Your task to perform on an android device: Show me recent news Image 0: 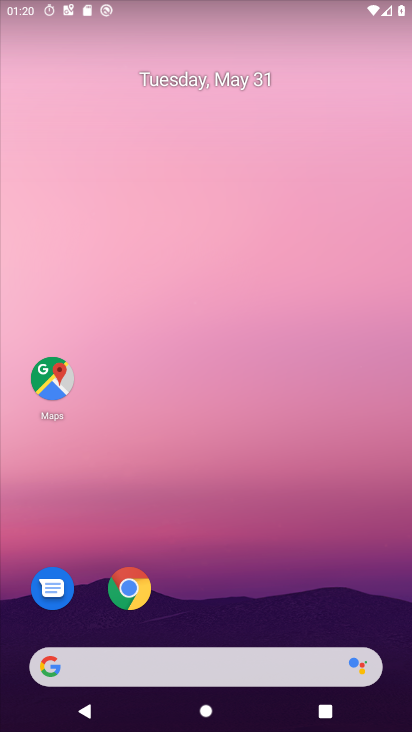
Step 0: drag from (283, 618) to (201, 22)
Your task to perform on an android device: Show me recent news Image 1: 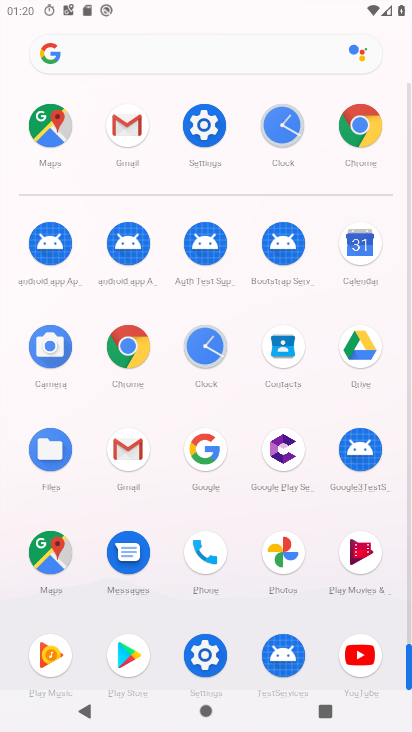
Step 1: click (120, 354)
Your task to perform on an android device: Show me recent news Image 2: 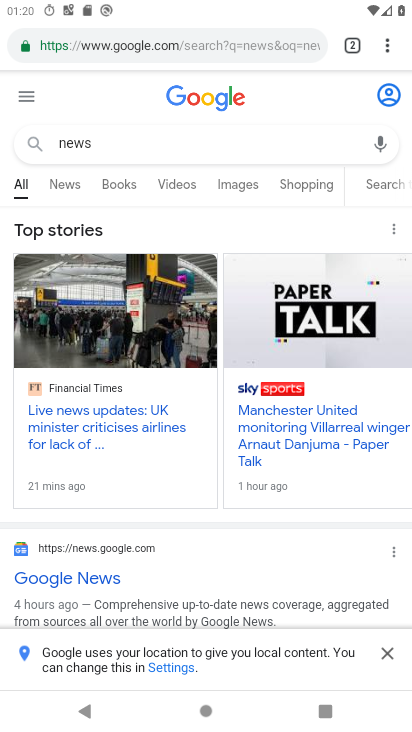
Step 2: click (255, 60)
Your task to perform on an android device: Show me recent news Image 3: 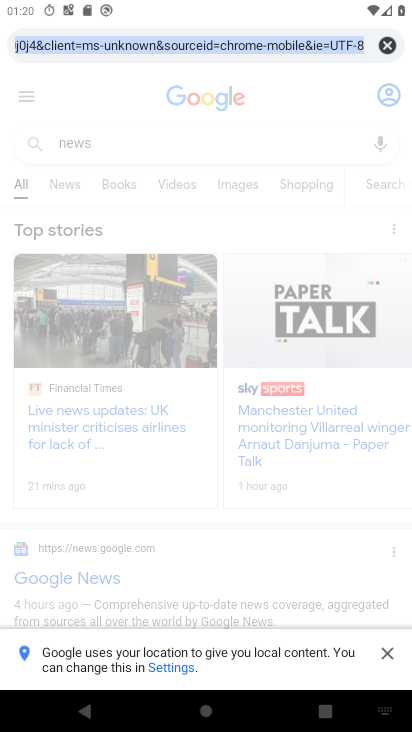
Step 3: type "recent news"
Your task to perform on an android device: Show me recent news Image 4: 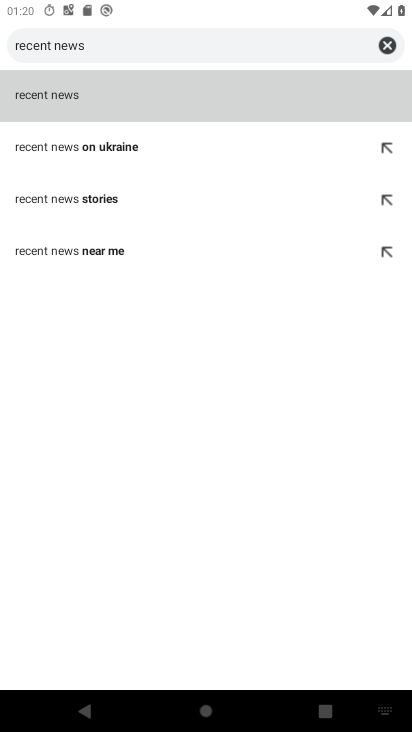
Step 4: click (76, 98)
Your task to perform on an android device: Show me recent news Image 5: 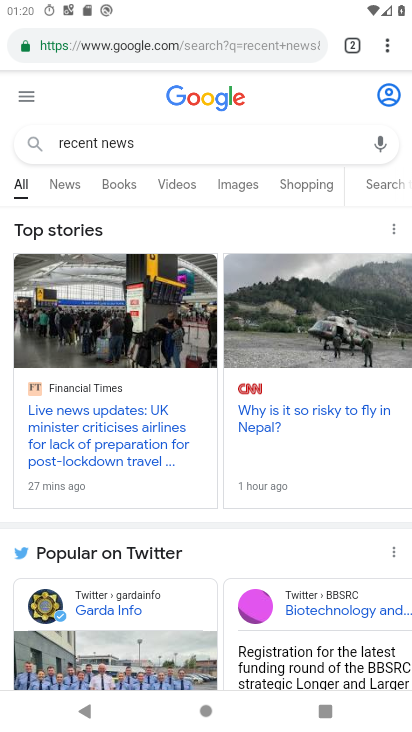
Step 5: task complete